Your task to perform on an android device: toggle pop-ups in chrome Image 0: 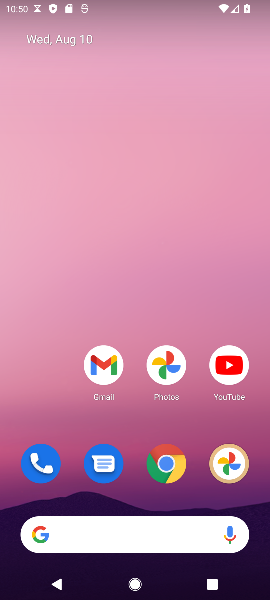
Step 0: click (166, 473)
Your task to perform on an android device: toggle pop-ups in chrome Image 1: 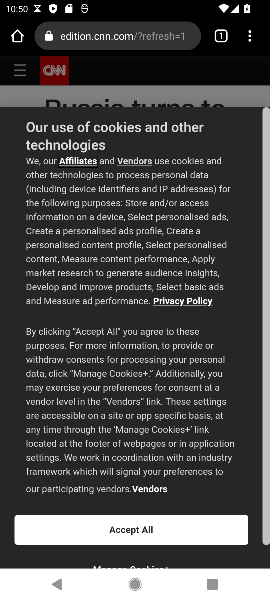
Step 1: click (251, 40)
Your task to perform on an android device: toggle pop-ups in chrome Image 2: 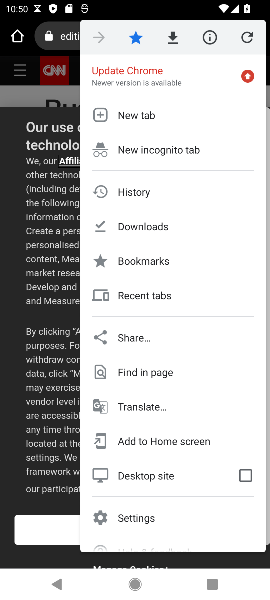
Step 2: click (140, 521)
Your task to perform on an android device: toggle pop-ups in chrome Image 3: 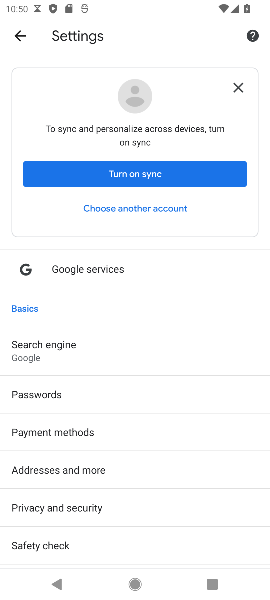
Step 3: click (120, 310)
Your task to perform on an android device: toggle pop-ups in chrome Image 4: 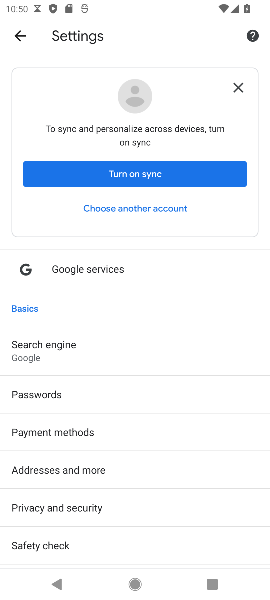
Step 4: drag from (169, 494) to (199, 203)
Your task to perform on an android device: toggle pop-ups in chrome Image 5: 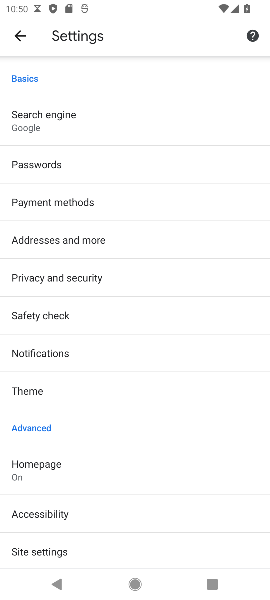
Step 5: drag from (142, 491) to (173, 250)
Your task to perform on an android device: toggle pop-ups in chrome Image 6: 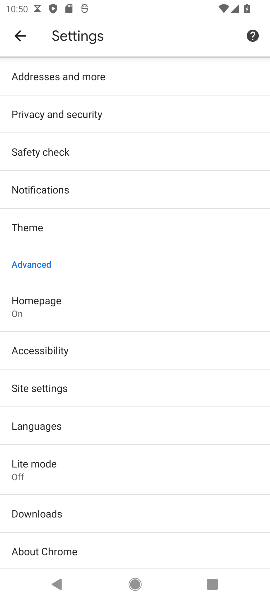
Step 6: click (63, 391)
Your task to perform on an android device: toggle pop-ups in chrome Image 7: 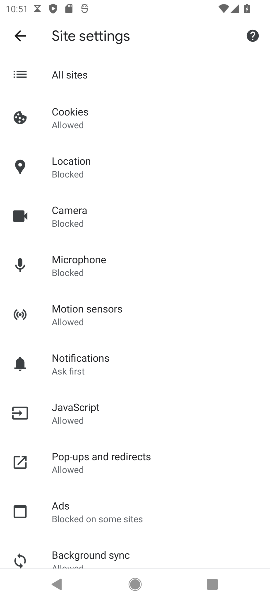
Step 7: click (84, 465)
Your task to perform on an android device: toggle pop-ups in chrome Image 8: 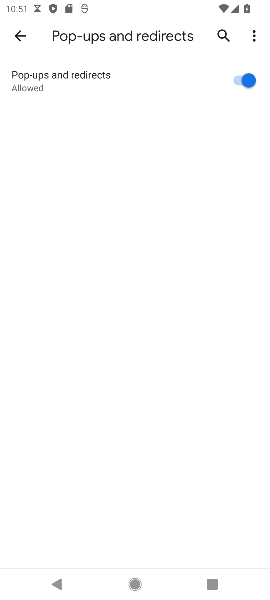
Step 8: task complete